Your task to perform on an android device: turn off location history Image 0: 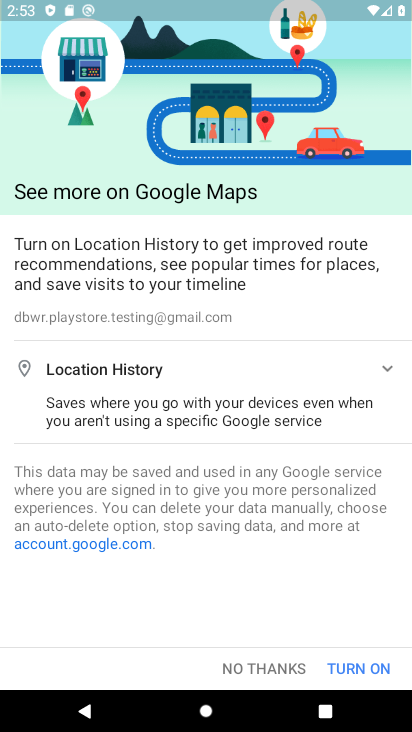
Step 0: press home button
Your task to perform on an android device: turn off location history Image 1: 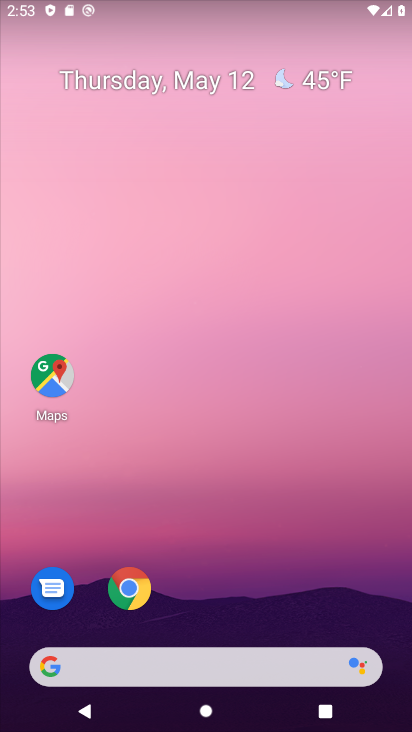
Step 1: drag from (194, 587) to (209, 238)
Your task to perform on an android device: turn off location history Image 2: 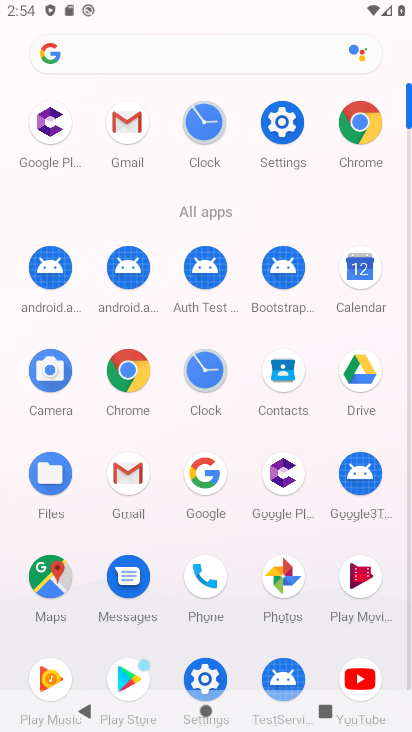
Step 2: click (206, 678)
Your task to perform on an android device: turn off location history Image 3: 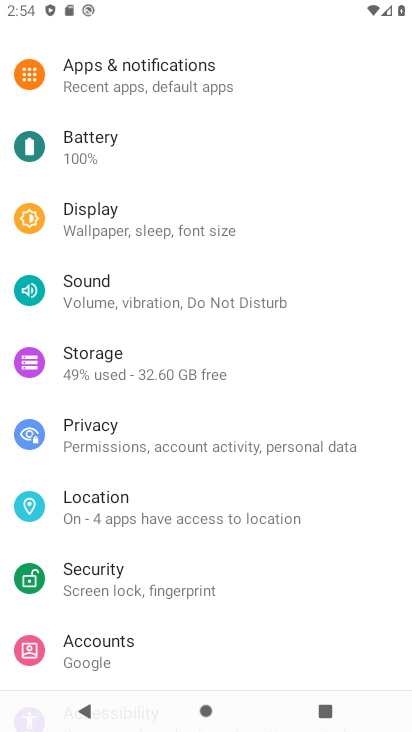
Step 3: click (139, 500)
Your task to perform on an android device: turn off location history Image 4: 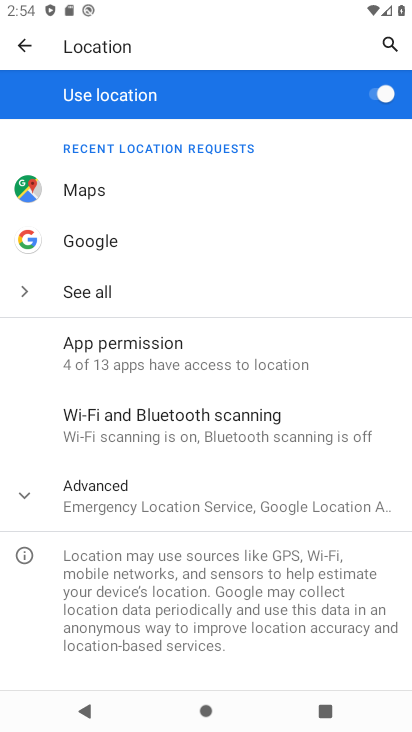
Step 4: click (136, 502)
Your task to perform on an android device: turn off location history Image 5: 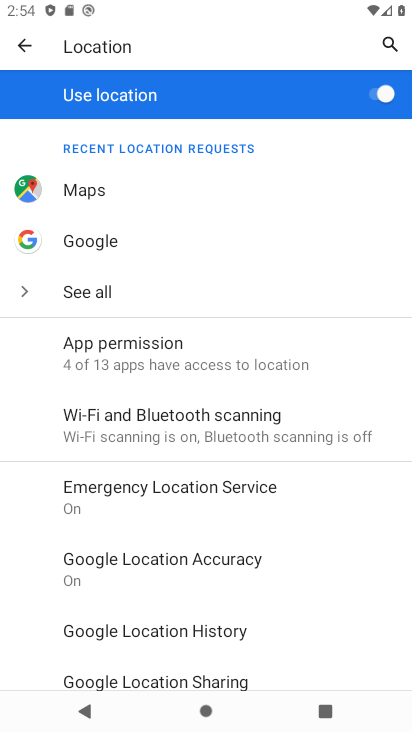
Step 5: drag from (150, 642) to (161, 450)
Your task to perform on an android device: turn off location history Image 6: 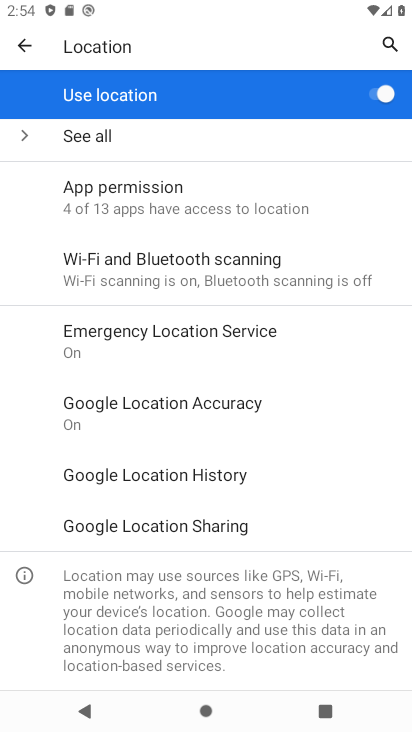
Step 6: click (156, 475)
Your task to perform on an android device: turn off location history Image 7: 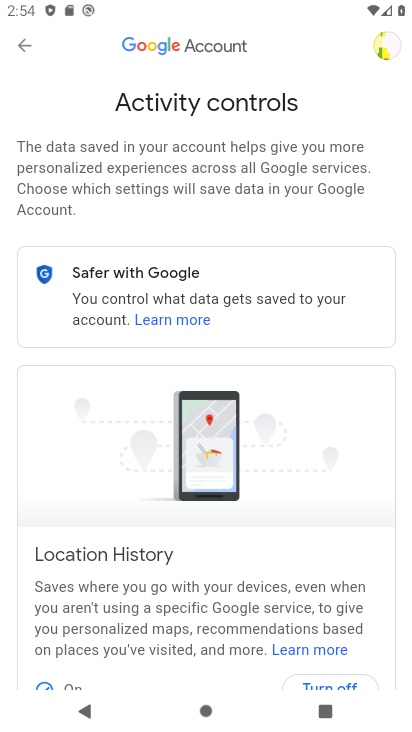
Step 7: drag from (255, 588) to (312, 286)
Your task to perform on an android device: turn off location history Image 8: 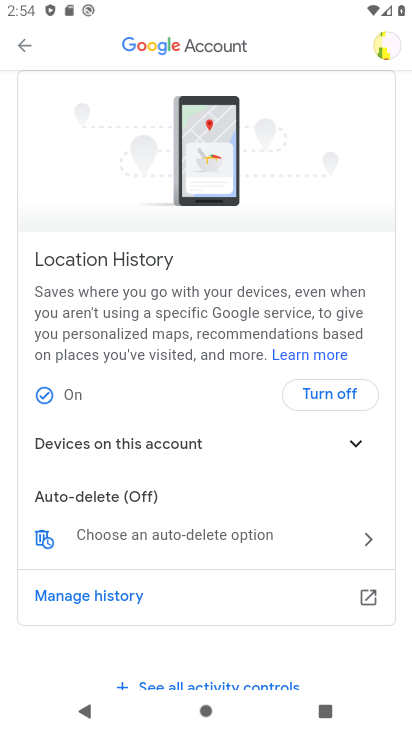
Step 8: click (324, 389)
Your task to perform on an android device: turn off location history Image 9: 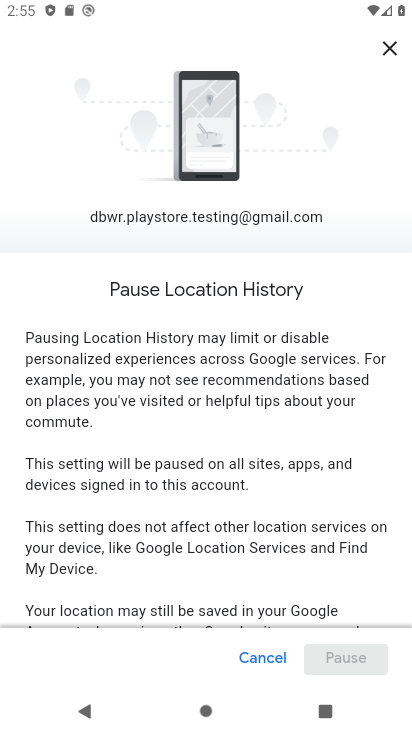
Step 9: drag from (231, 524) to (245, 241)
Your task to perform on an android device: turn off location history Image 10: 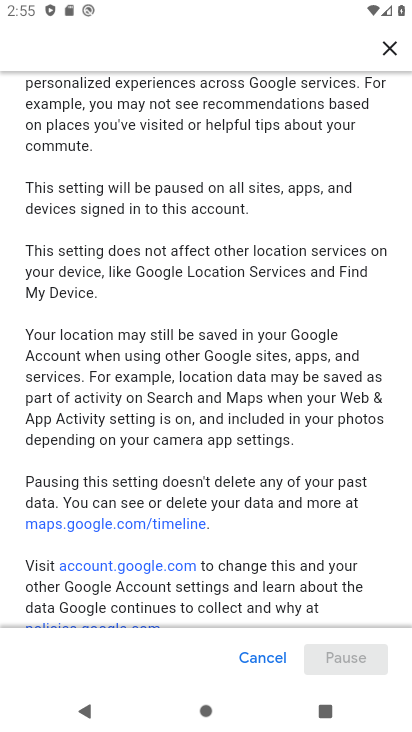
Step 10: drag from (239, 525) to (259, 135)
Your task to perform on an android device: turn off location history Image 11: 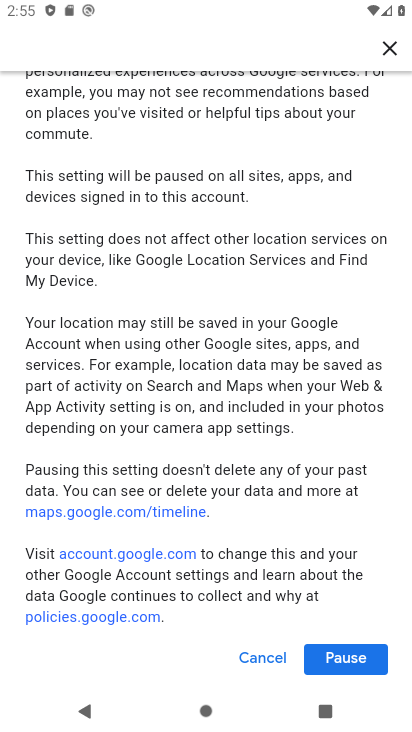
Step 11: click (338, 661)
Your task to perform on an android device: turn off location history Image 12: 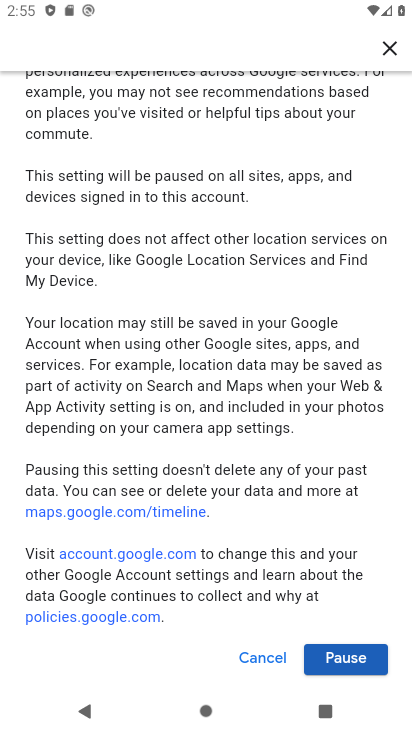
Step 12: click (339, 662)
Your task to perform on an android device: turn off location history Image 13: 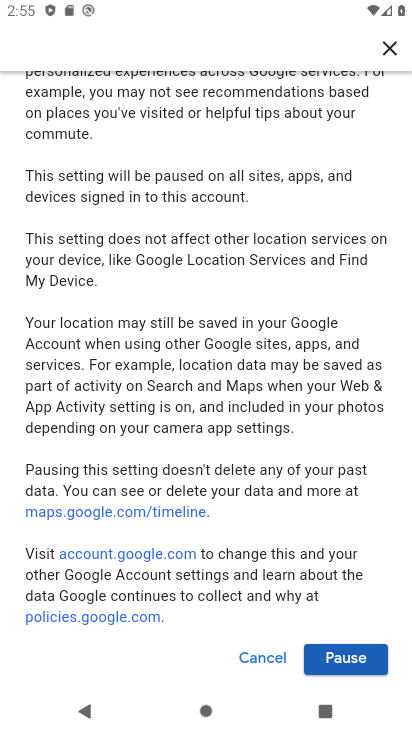
Step 13: click (343, 660)
Your task to perform on an android device: turn off location history Image 14: 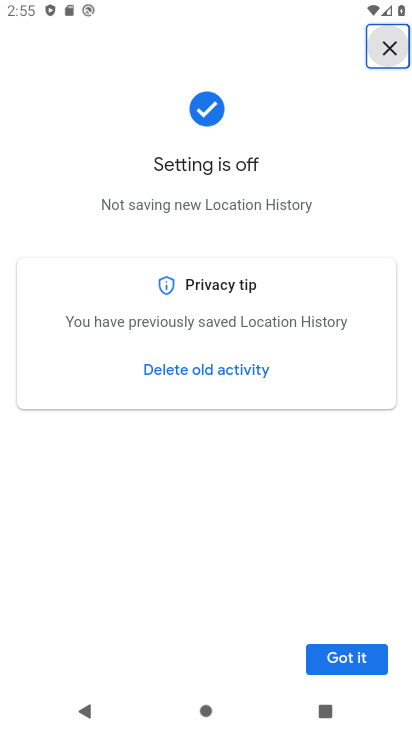
Step 14: click (343, 660)
Your task to perform on an android device: turn off location history Image 15: 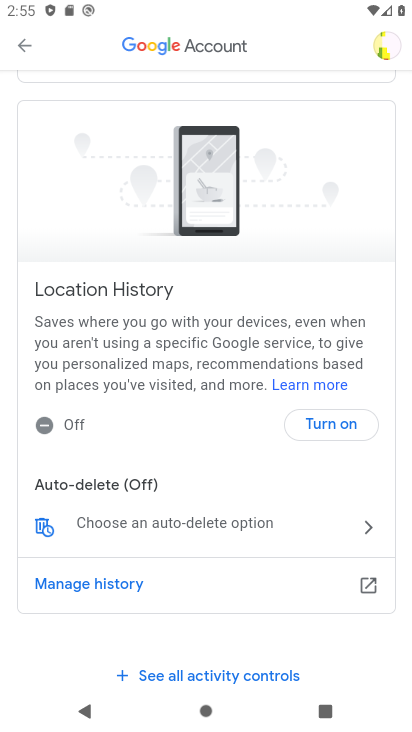
Step 15: task complete